Your task to perform on an android device: Go to location settings Image 0: 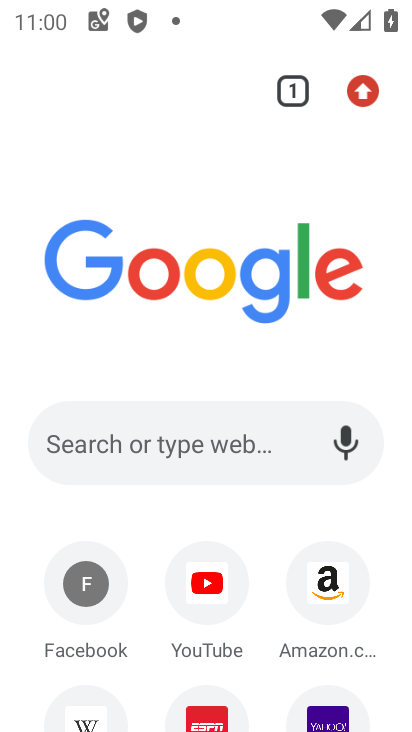
Step 0: press home button
Your task to perform on an android device: Go to location settings Image 1: 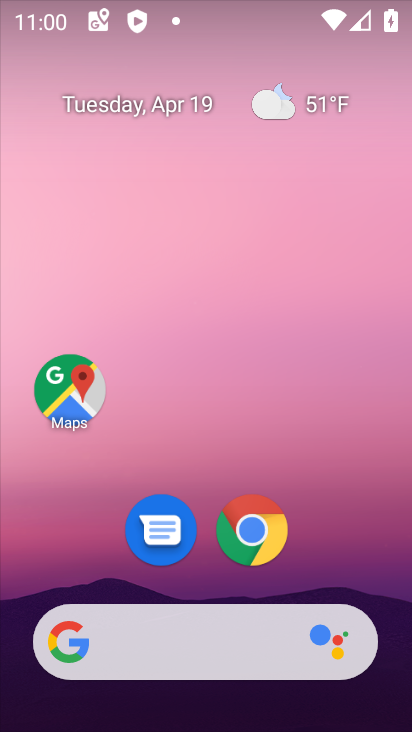
Step 1: drag from (299, 469) to (265, 141)
Your task to perform on an android device: Go to location settings Image 2: 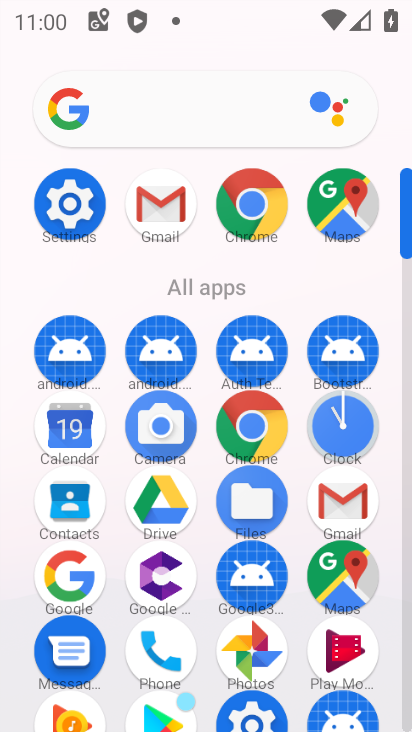
Step 2: click (73, 205)
Your task to perform on an android device: Go to location settings Image 3: 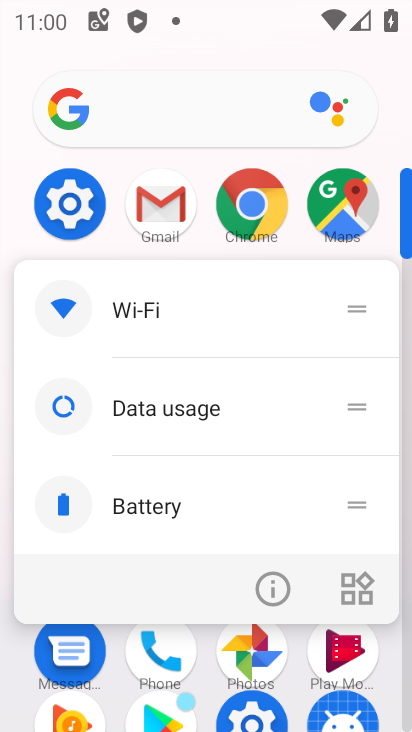
Step 3: click (73, 197)
Your task to perform on an android device: Go to location settings Image 4: 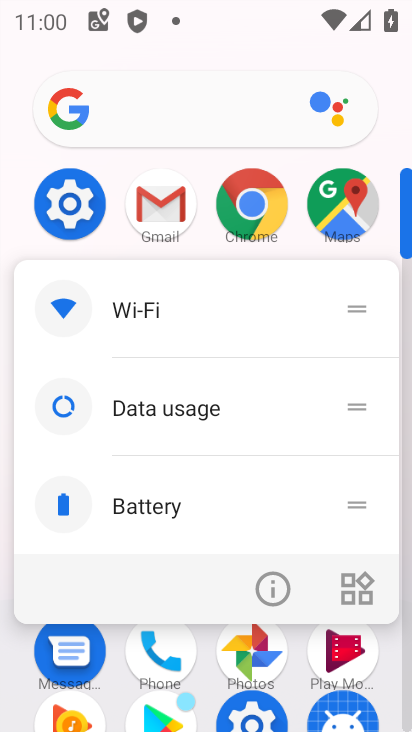
Step 4: click (73, 199)
Your task to perform on an android device: Go to location settings Image 5: 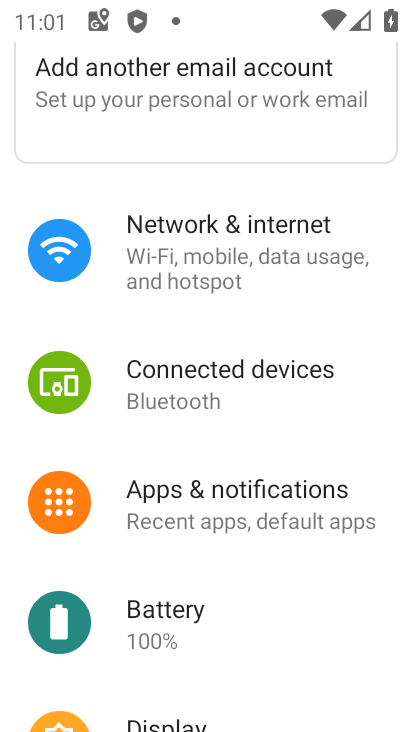
Step 5: drag from (223, 634) to (257, 210)
Your task to perform on an android device: Go to location settings Image 6: 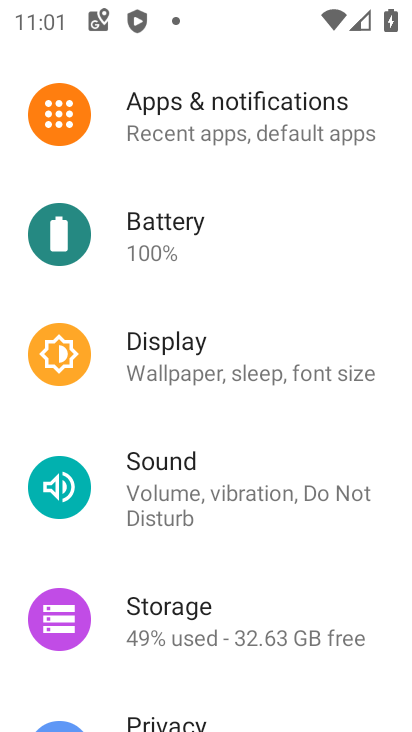
Step 6: drag from (262, 547) to (276, 153)
Your task to perform on an android device: Go to location settings Image 7: 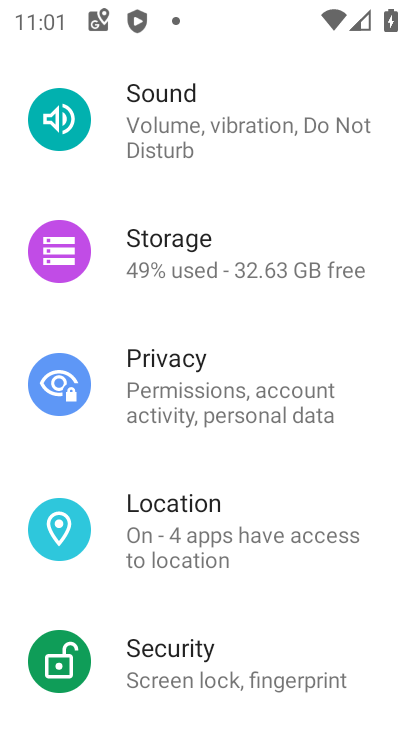
Step 7: click (247, 533)
Your task to perform on an android device: Go to location settings Image 8: 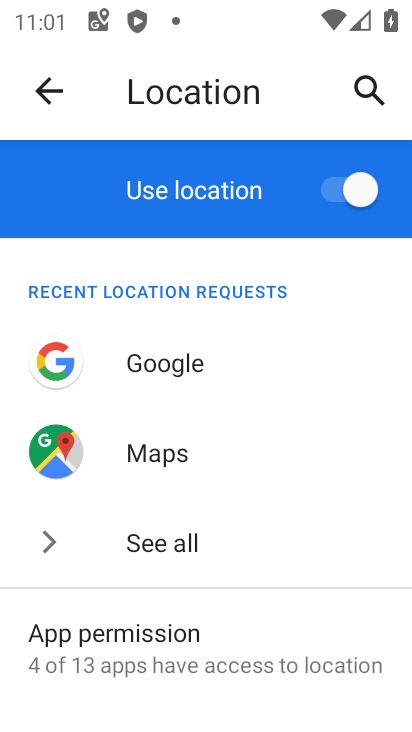
Step 8: task complete